Your task to perform on an android device: Is it going to rain today? Image 0: 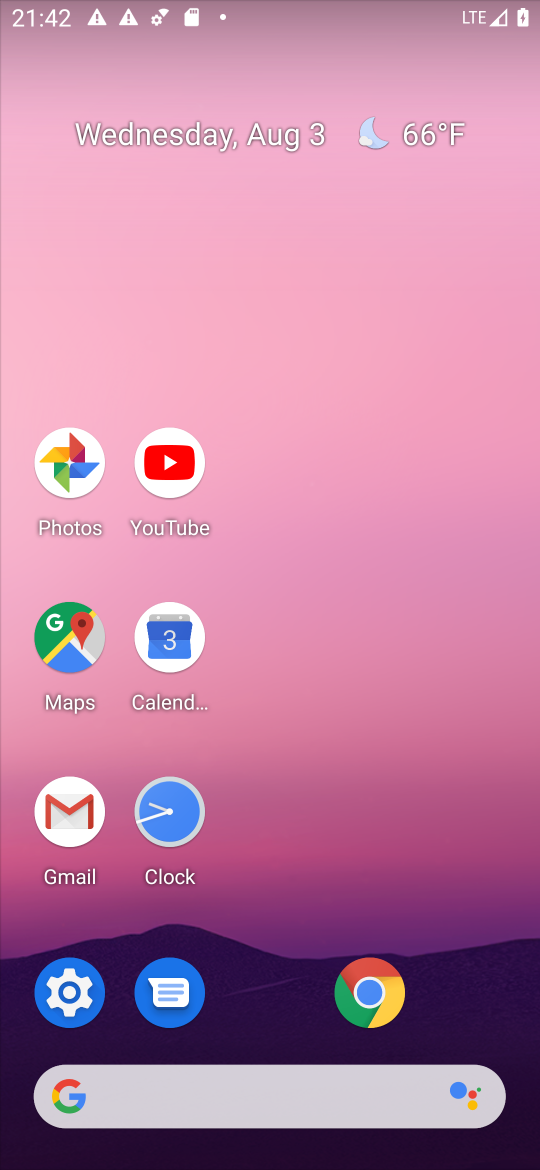
Step 0: click (254, 1099)
Your task to perform on an android device: Is it going to rain today? Image 1: 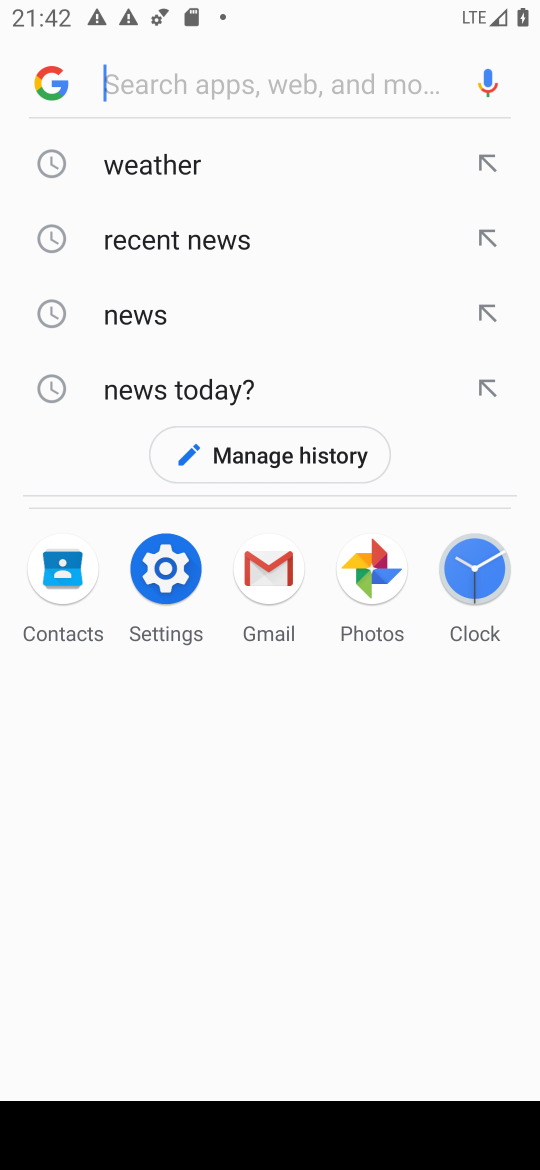
Step 1: click (156, 164)
Your task to perform on an android device: Is it going to rain today? Image 2: 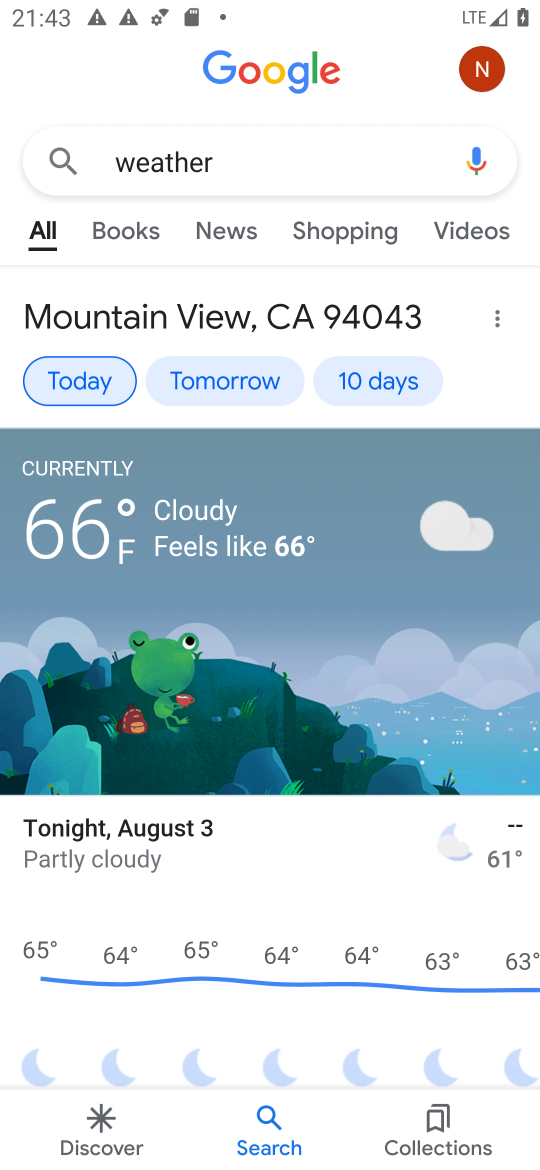
Step 2: task complete